Your task to perform on an android device: turn on notifications settings in the gmail app Image 0: 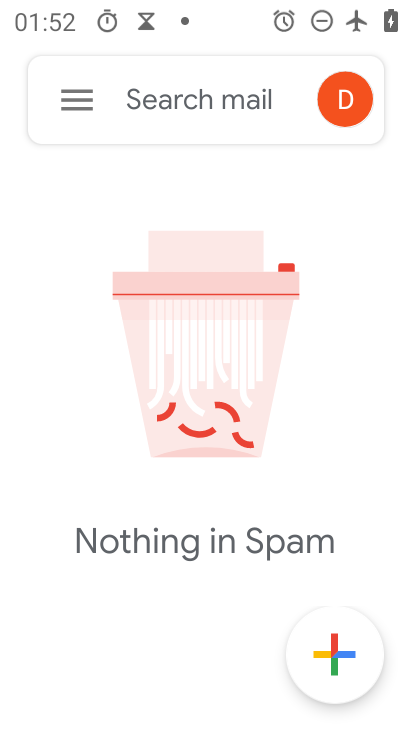
Step 0: click (74, 82)
Your task to perform on an android device: turn on notifications settings in the gmail app Image 1: 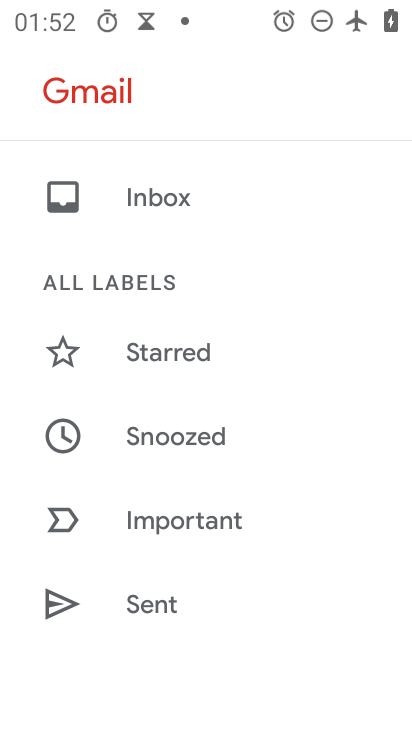
Step 1: drag from (199, 612) to (232, 50)
Your task to perform on an android device: turn on notifications settings in the gmail app Image 2: 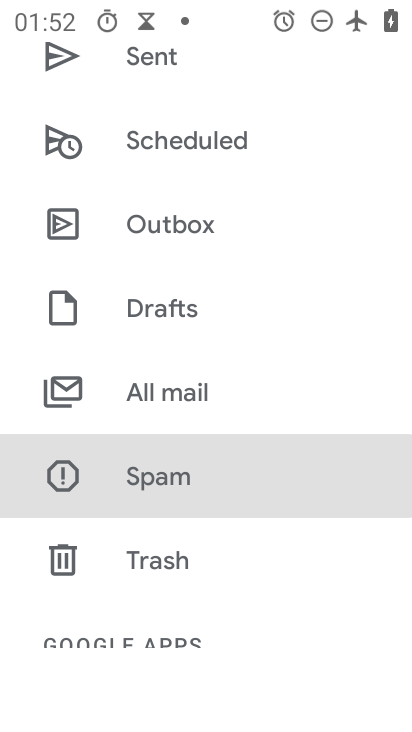
Step 2: drag from (303, 605) to (325, 106)
Your task to perform on an android device: turn on notifications settings in the gmail app Image 3: 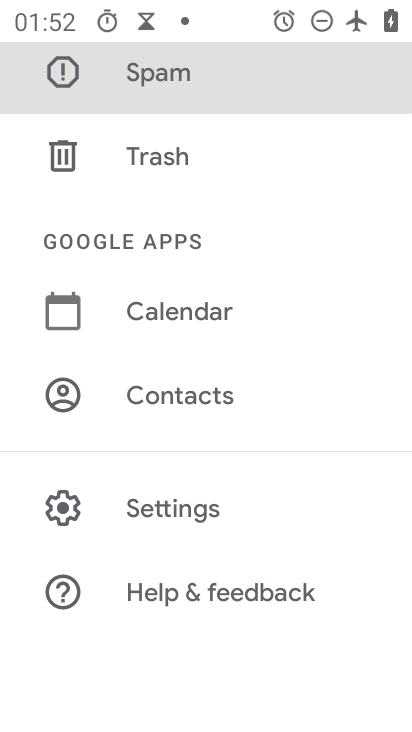
Step 3: click (151, 518)
Your task to perform on an android device: turn on notifications settings in the gmail app Image 4: 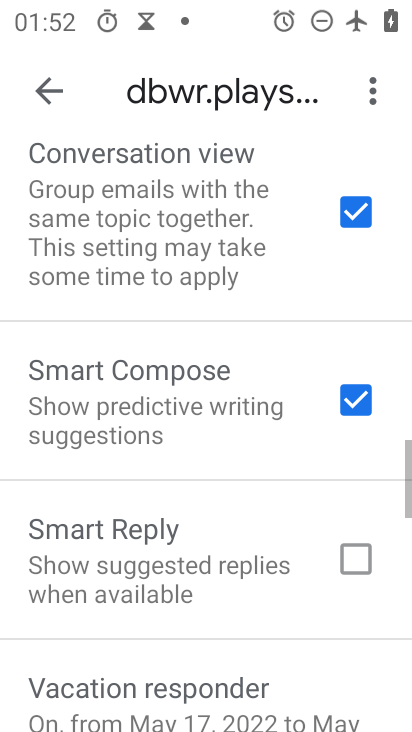
Step 4: drag from (267, 675) to (222, 694)
Your task to perform on an android device: turn on notifications settings in the gmail app Image 5: 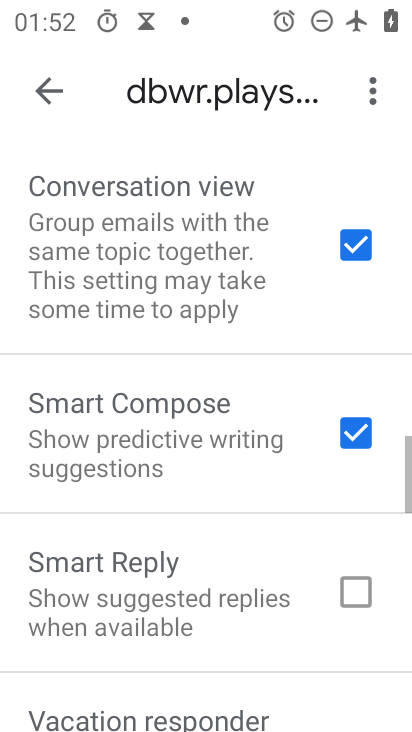
Step 5: drag from (269, 311) to (275, 637)
Your task to perform on an android device: turn on notifications settings in the gmail app Image 6: 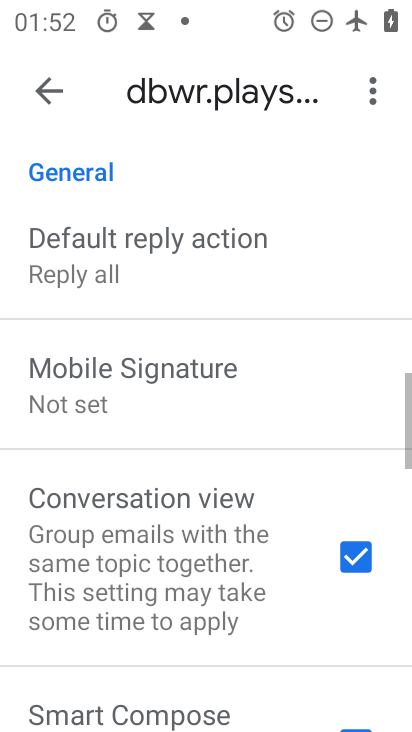
Step 6: drag from (259, 357) to (251, 719)
Your task to perform on an android device: turn on notifications settings in the gmail app Image 7: 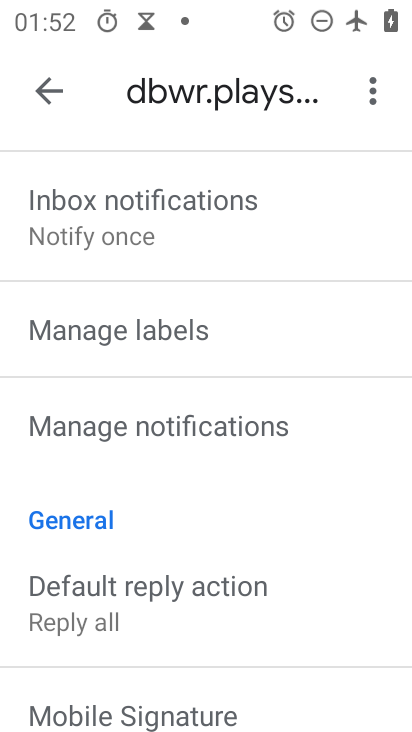
Step 7: click (179, 425)
Your task to perform on an android device: turn on notifications settings in the gmail app Image 8: 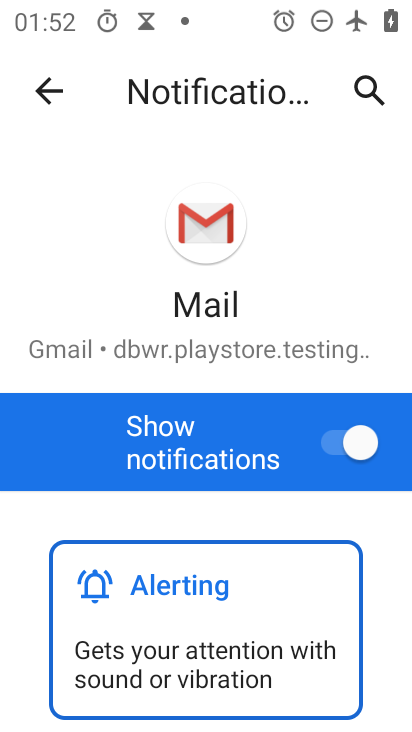
Step 8: task complete